Your task to perform on an android device: change alarm snooze length Image 0: 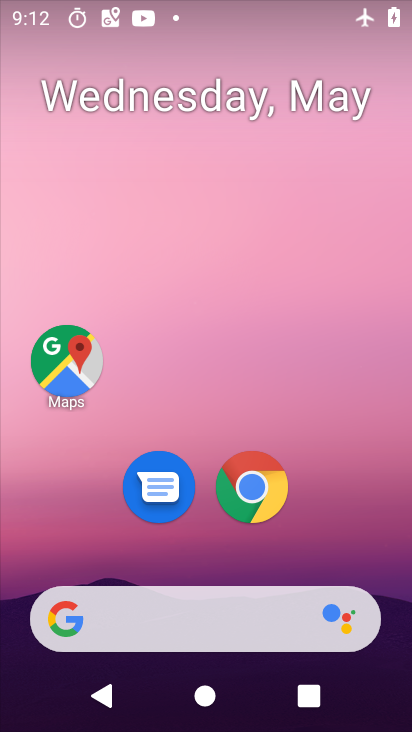
Step 0: drag from (218, 567) to (214, 256)
Your task to perform on an android device: change alarm snooze length Image 1: 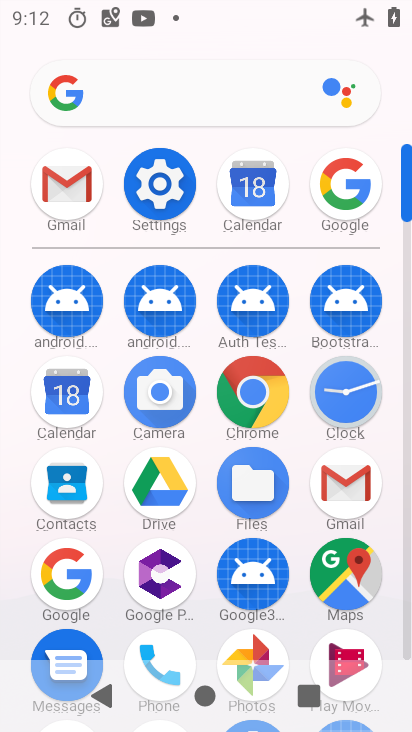
Step 1: click (331, 381)
Your task to perform on an android device: change alarm snooze length Image 2: 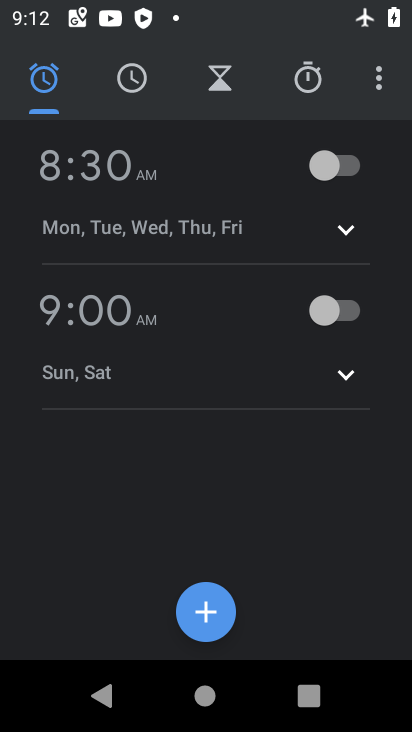
Step 2: click (372, 72)
Your task to perform on an android device: change alarm snooze length Image 3: 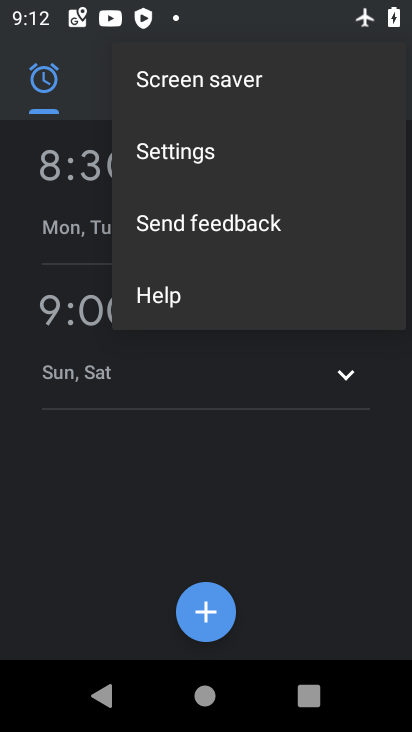
Step 3: click (266, 156)
Your task to perform on an android device: change alarm snooze length Image 4: 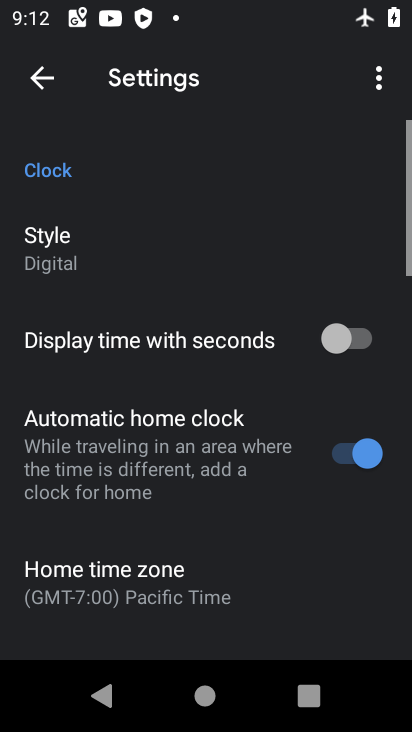
Step 4: drag from (168, 501) to (188, 270)
Your task to perform on an android device: change alarm snooze length Image 5: 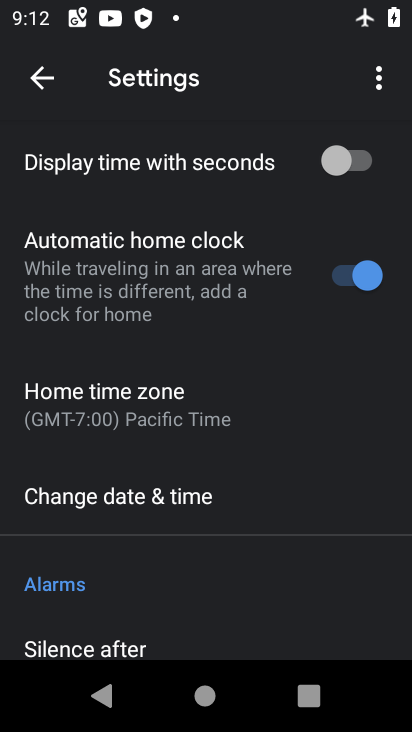
Step 5: drag from (160, 517) to (219, 286)
Your task to perform on an android device: change alarm snooze length Image 6: 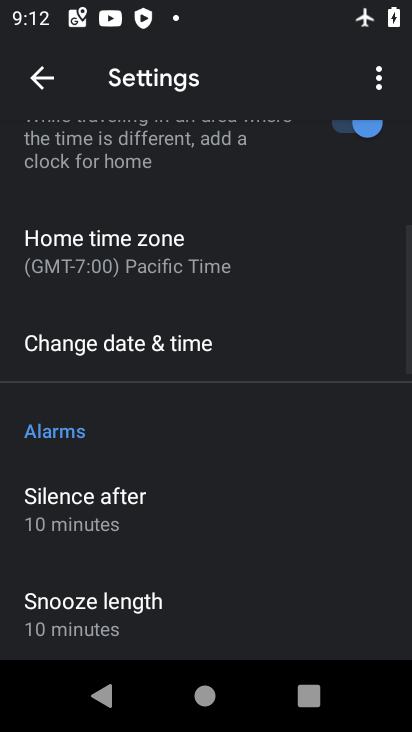
Step 6: drag from (198, 525) to (229, 362)
Your task to perform on an android device: change alarm snooze length Image 7: 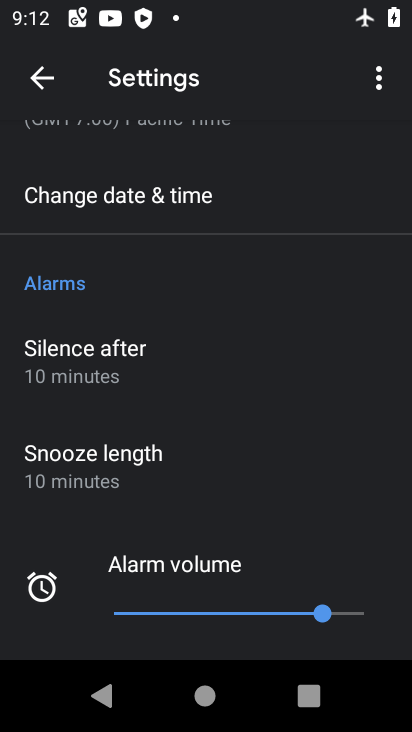
Step 7: click (115, 470)
Your task to perform on an android device: change alarm snooze length Image 8: 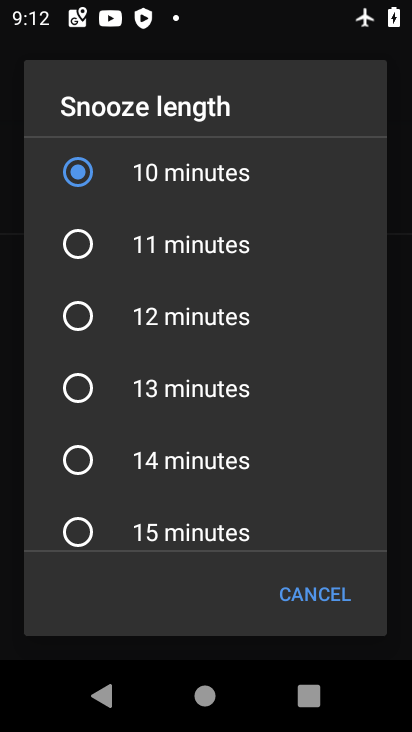
Step 8: click (145, 465)
Your task to perform on an android device: change alarm snooze length Image 9: 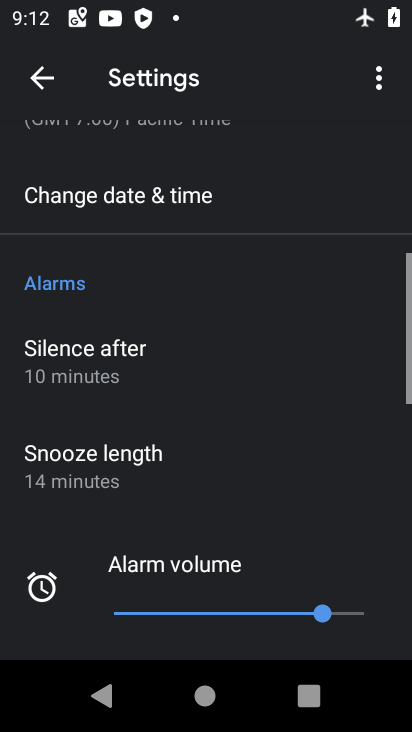
Step 9: task complete